Your task to perform on an android device: Go to Amazon Image 0: 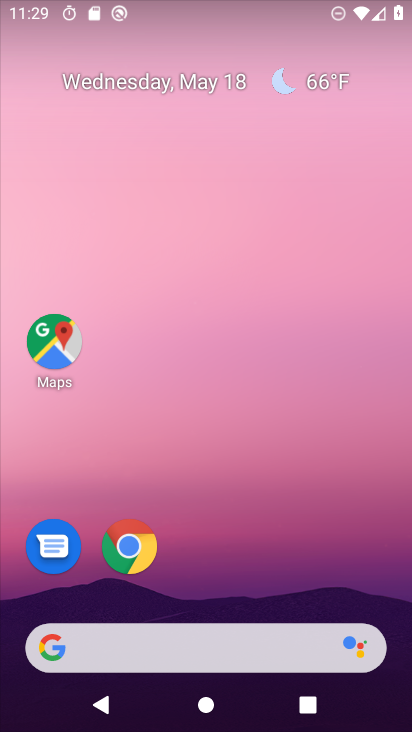
Step 0: click (130, 549)
Your task to perform on an android device: Go to Amazon Image 1: 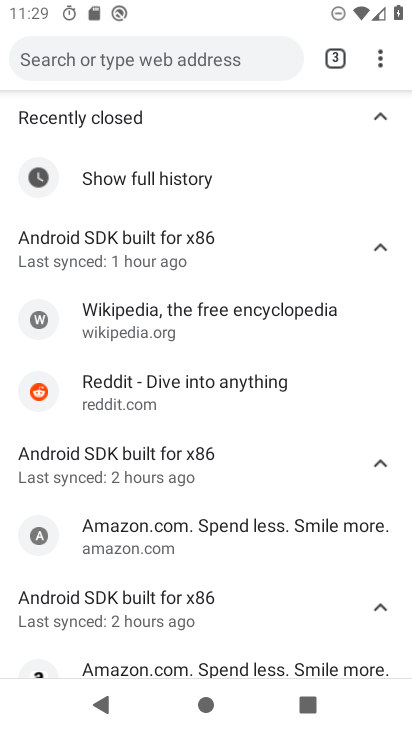
Step 1: click (349, 52)
Your task to perform on an android device: Go to Amazon Image 2: 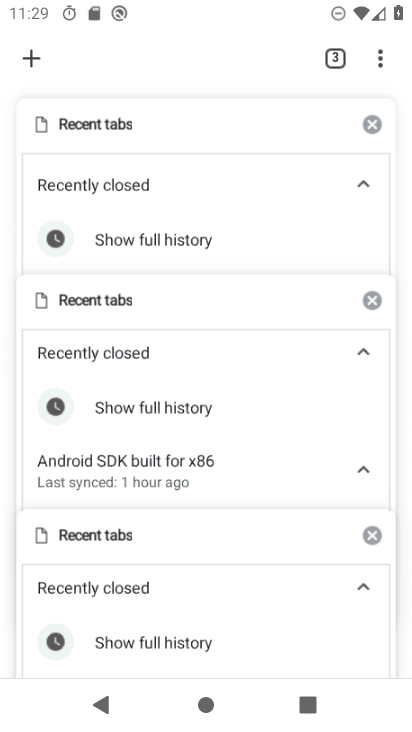
Step 2: click (37, 67)
Your task to perform on an android device: Go to Amazon Image 3: 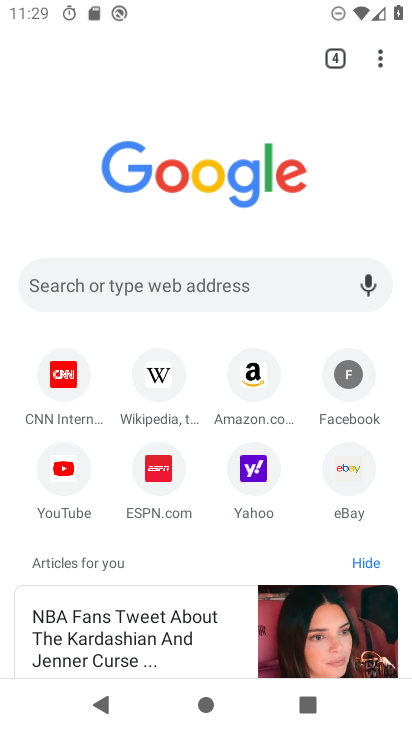
Step 3: click (264, 366)
Your task to perform on an android device: Go to Amazon Image 4: 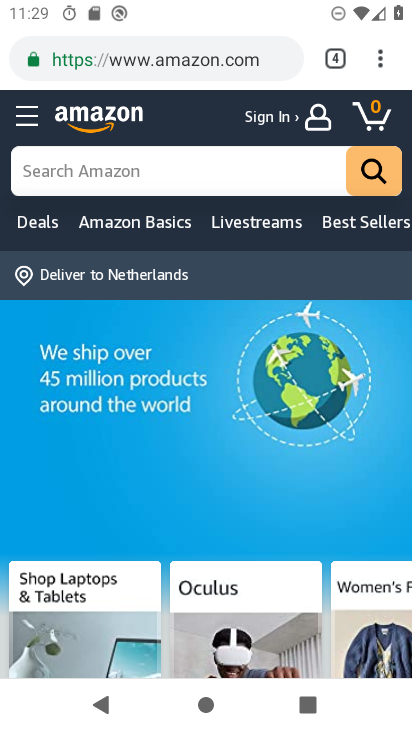
Step 4: task complete